Your task to perform on an android device: turn notification dots on Image 0: 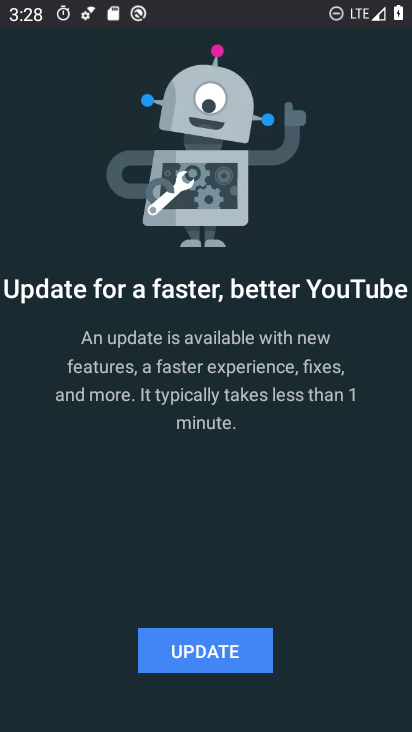
Step 0: press home button
Your task to perform on an android device: turn notification dots on Image 1: 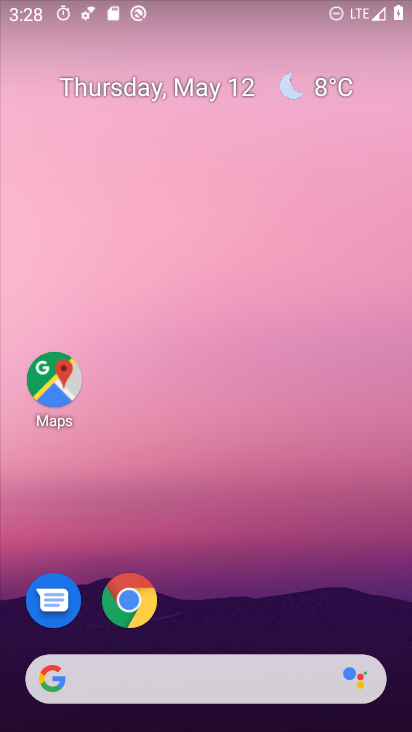
Step 1: drag from (210, 707) to (212, 200)
Your task to perform on an android device: turn notification dots on Image 2: 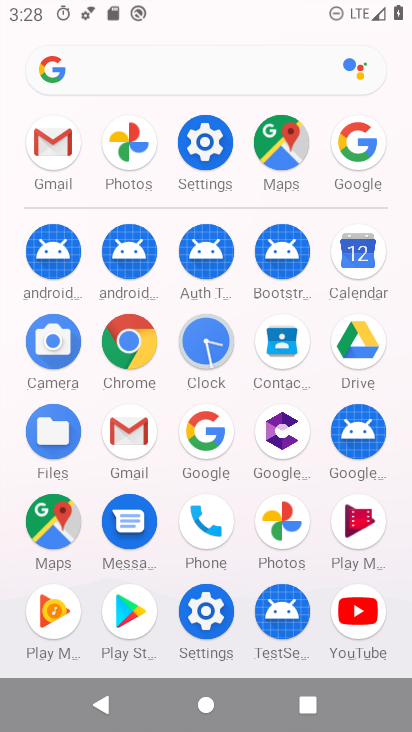
Step 2: click (205, 140)
Your task to perform on an android device: turn notification dots on Image 3: 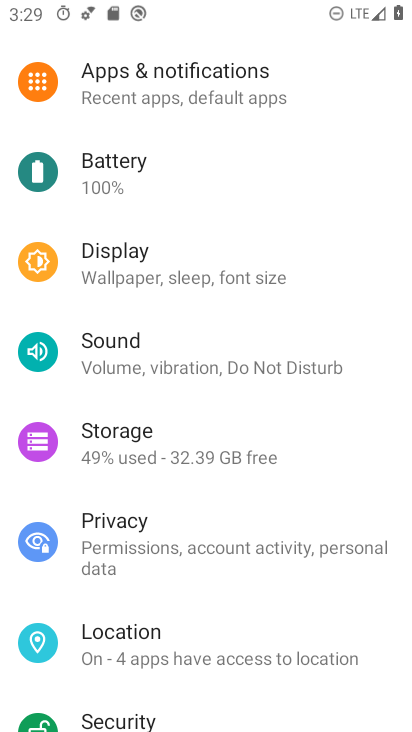
Step 3: click (171, 95)
Your task to perform on an android device: turn notification dots on Image 4: 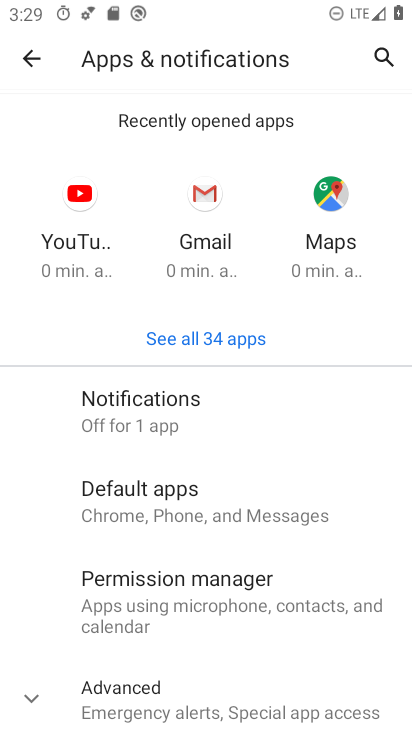
Step 4: click (123, 416)
Your task to perform on an android device: turn notification dots on Image 5: 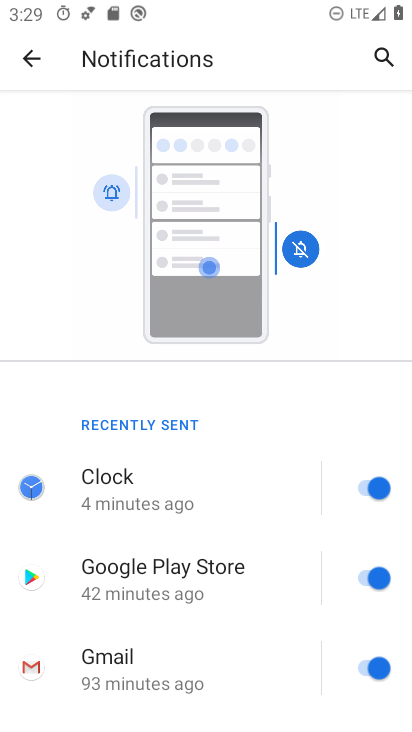
Step 5: drag from (171, 657) to (173, 353)
Your task to perform on an android device: turn notification dots on Image 6: 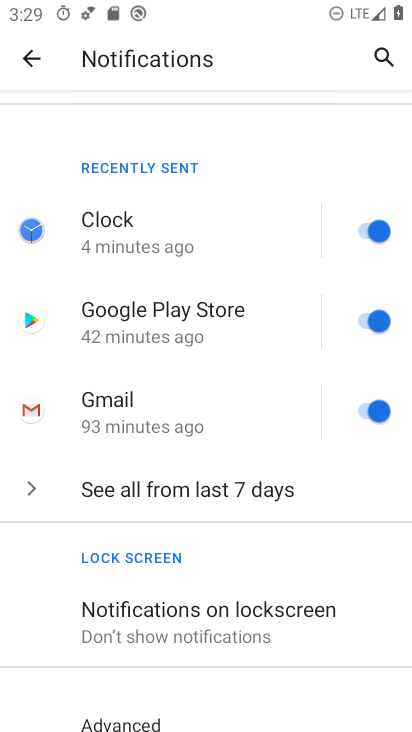
Step 6: drag from (177, 684) to (182, 281)
Your task to perform on an android device: turn notification dots on Image 7: 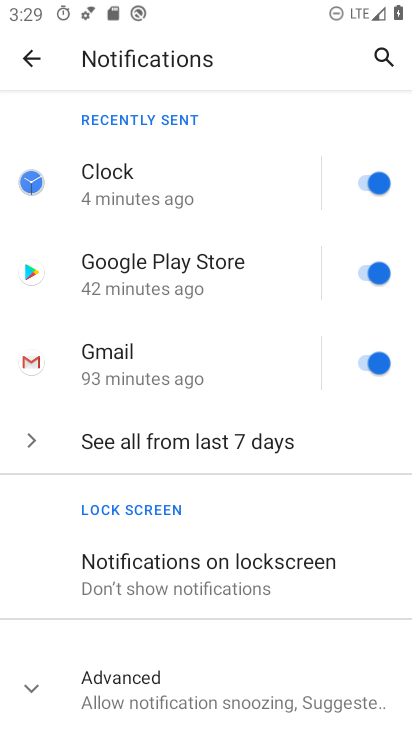
Step 7: click (127, 678)
Your task to perform on an android device: turn notification dots on Image 8: 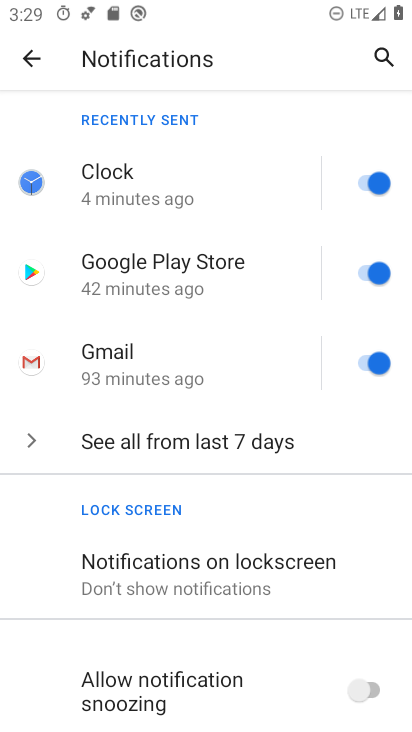
Step 8: drag from (207, 699) to (218, 318)
Your task to perform on an android device: turn notification dots on Image 9: 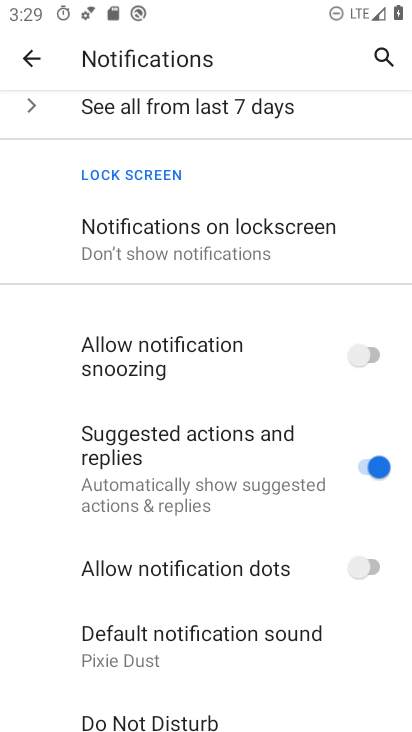
Step 9: click (376, 566)
Your task to perform on an android device: turn notification dots on Image 10: 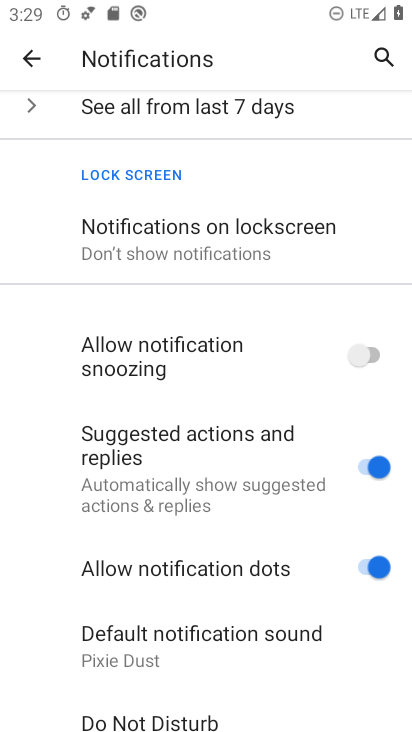
Step 10: task complete